Your task to perform on an android device: When is my next appointment? Image 0: 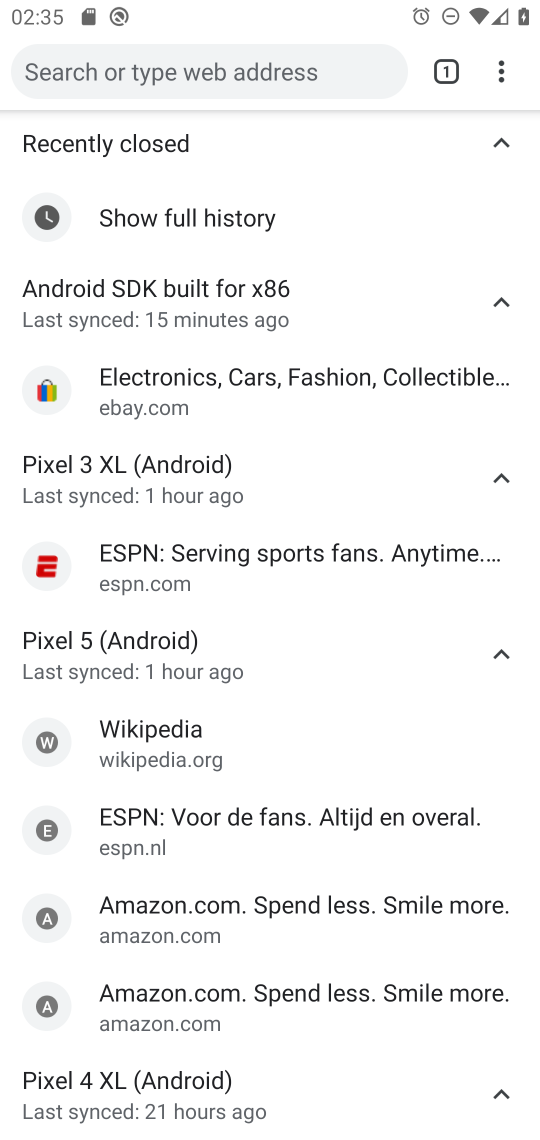
Step 0: press home button
Your task to perform on an android device: When is my next appointment? Image 1: 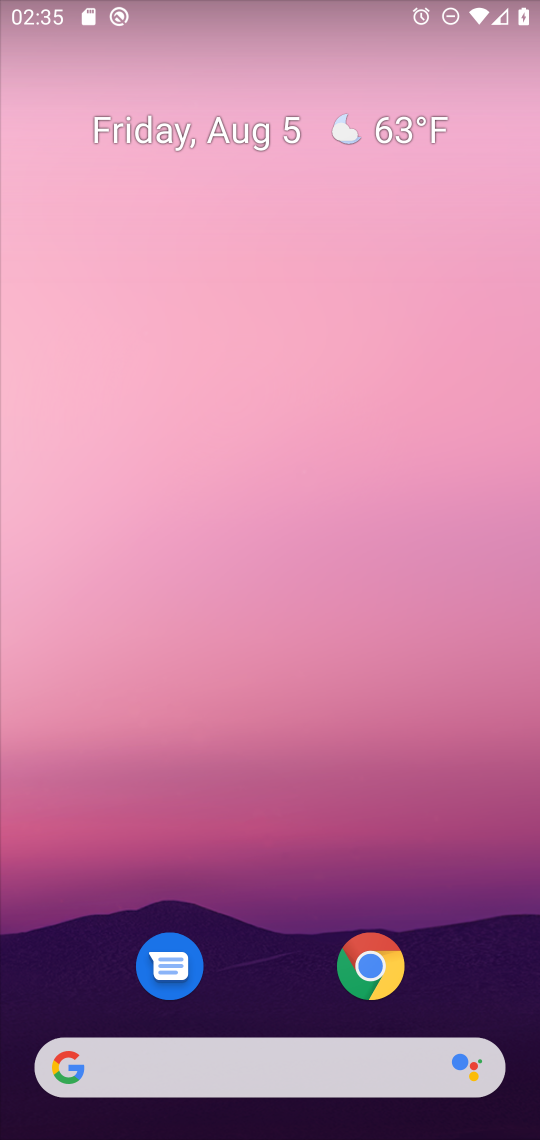
Step 1: drag from (268, 969) to (367, 58)
Your task to perform on an android device: When is my next appointment? Image 2: 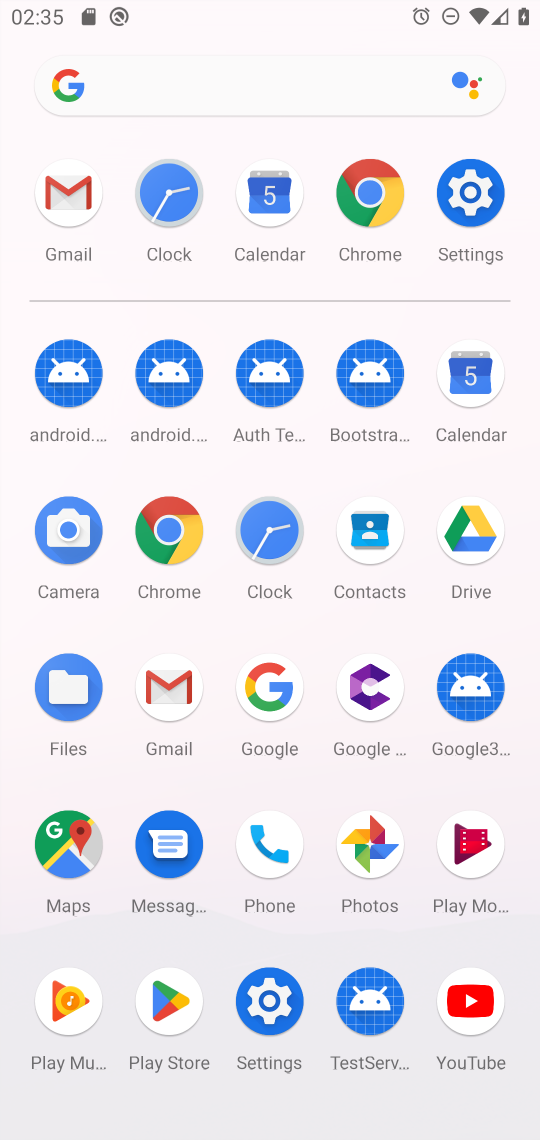
Step 2: click (286, 191)
Your task to perform on an android device: When is my next appointment? Image 3: 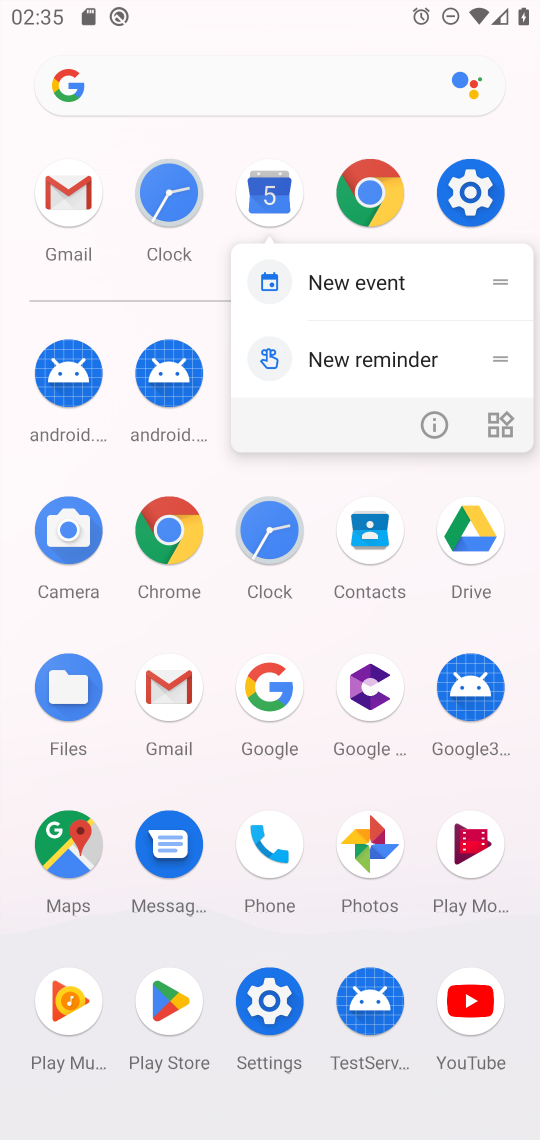
Step 3: click (276, 200)
Your task to perform on an android device: When is my next appointment? Image 4: 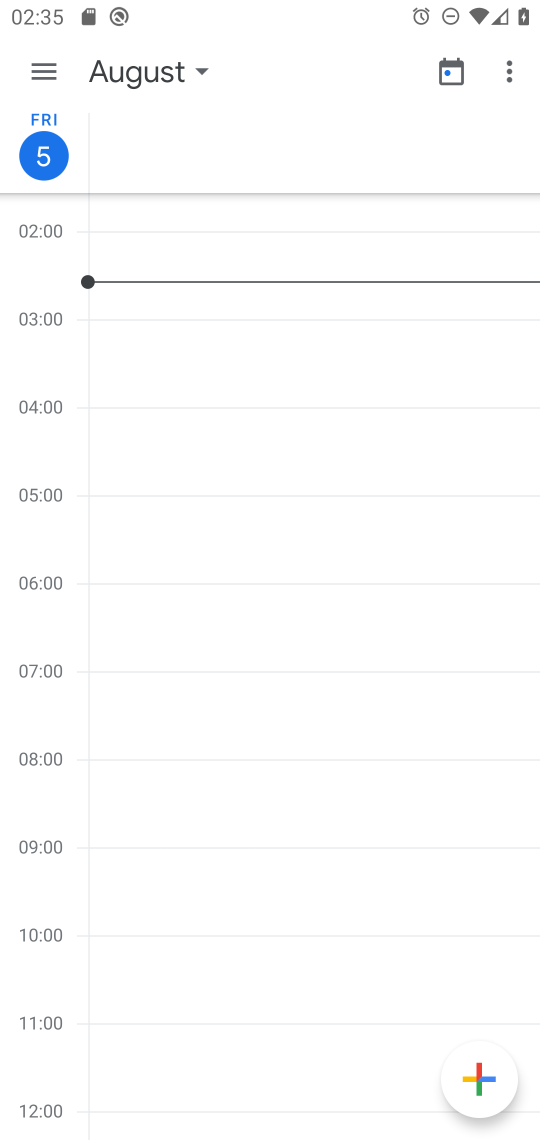
Step 4: click (47, 142)
Your task to perform on an android device: When is my next appointment? Image 5: 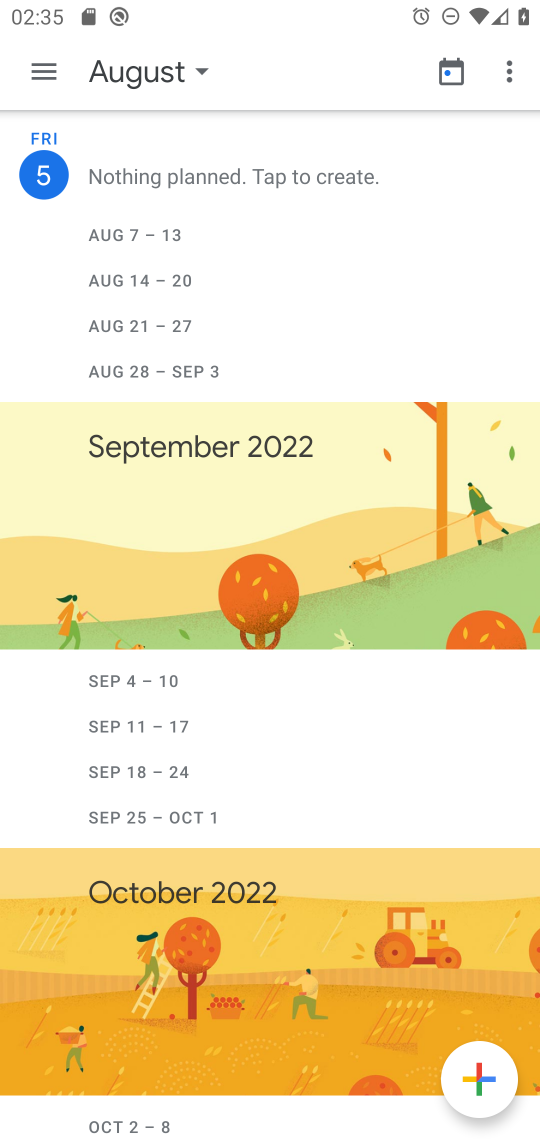
Step 5: task complete